Your task to perform on an android device: What's the weather going to be tomorrow? Image 0: 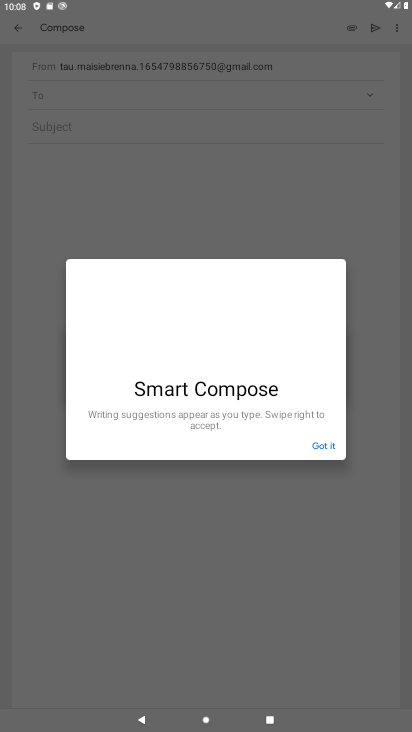
Step 0: press home button
Your task to perform on an android device: What's the weather going to be tomorrow? Image 1: 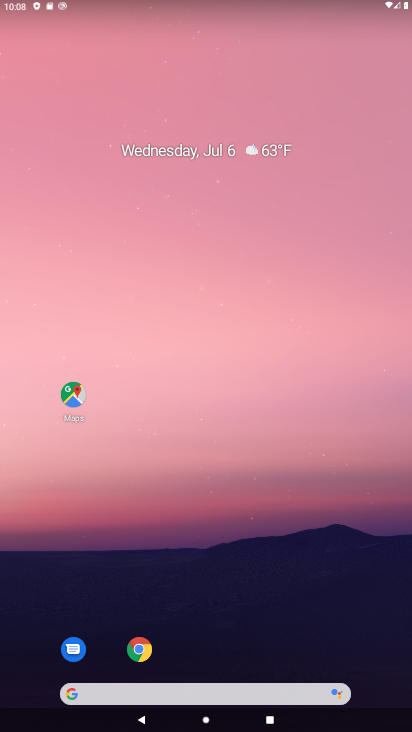
Step 1: click (72, 694)
Your task to perform on an android device: What's the weather going to be tomorrow? Image 2: 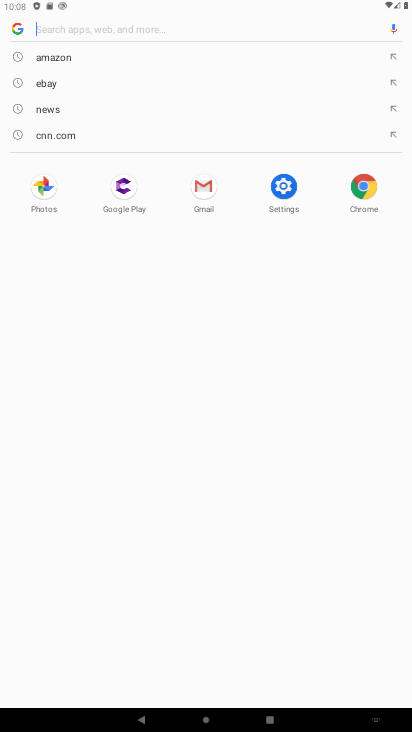
Step 2: click (121, 25)
Your task to perform on an android device: What's the weather going to be tomorrow? Image 3: 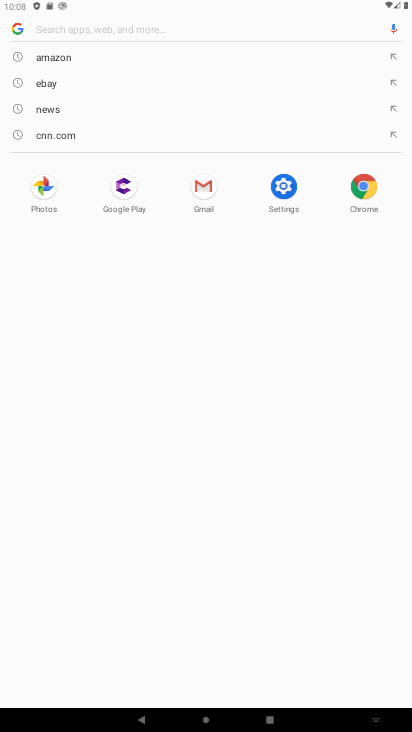
Step 3: type "weather going to be tomorrow?"
Your task to perform on an android device: What's the weather going to be tomorrow? Image 4: 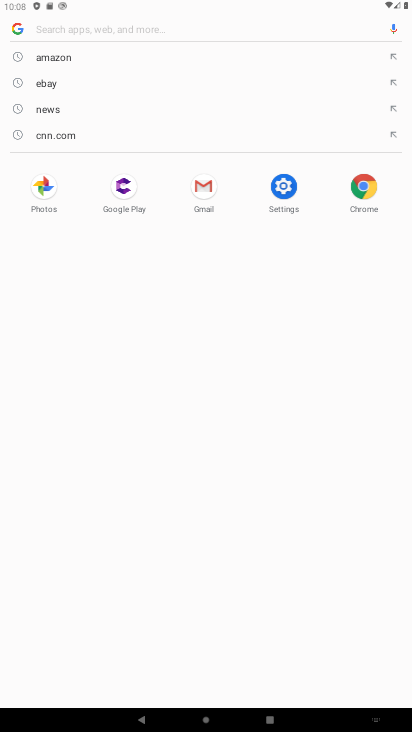
Step 4: click (121, 25)
Your task to perform on an android device: What's the weather going to be tomorrow? Image 5: 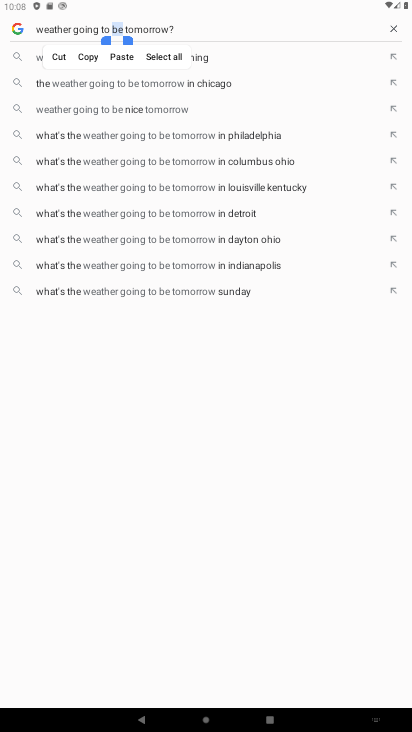
Step 5: click (241, 28)
Your task to perform on an android device: What's the weather going to be tomorrow? Image 6: 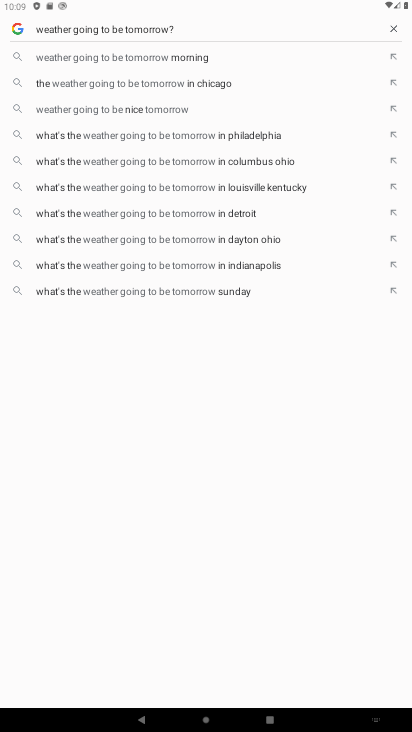
Step 6: click (212, 29)
Your task to perform on an android device: What's the weather going to be tomorrow? Image 7: 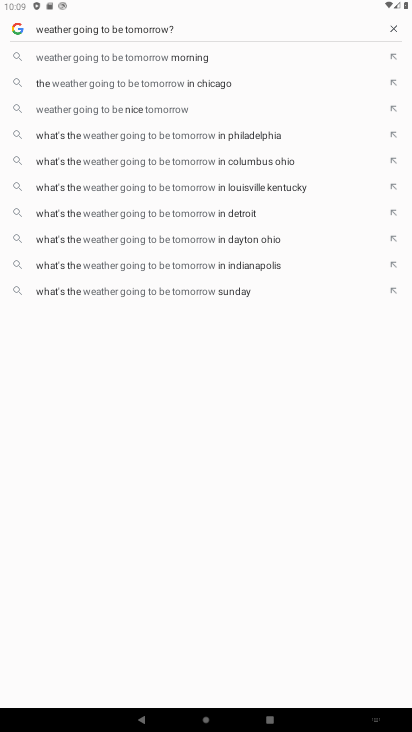
Step 7: click (241, 16)
Your task to perform on an android device: What's the weather going to be tomorrow? Image 8: 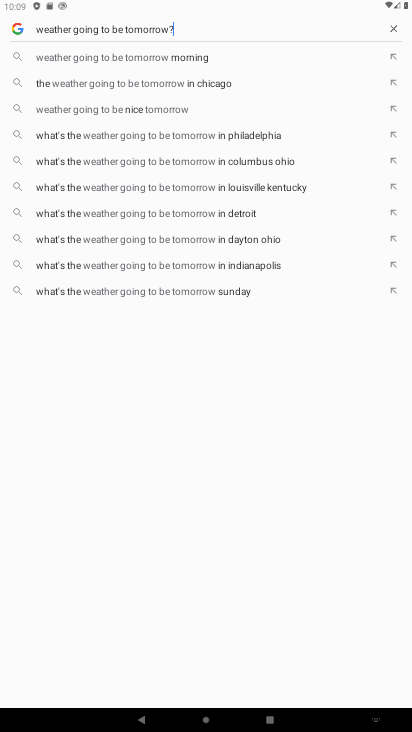
Step 8: click (394, 26)
Your task to perform on an android device: What's the weather going to be tomorrow? Image 9: 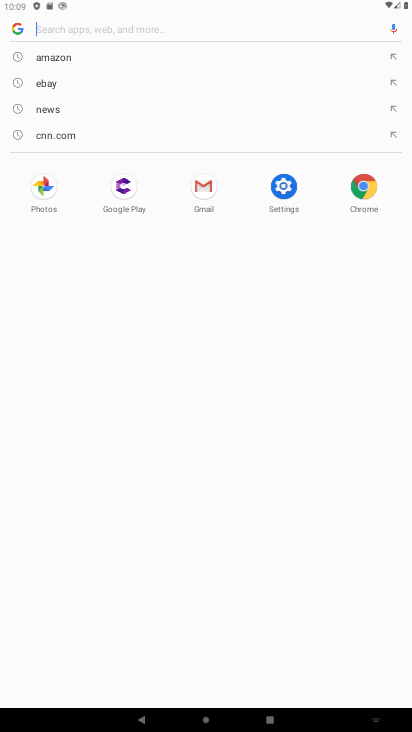
Step 9: type "weather tomorrow"
Your task to perform on an android device: What's the weather going to be tomorrow? Image 10: 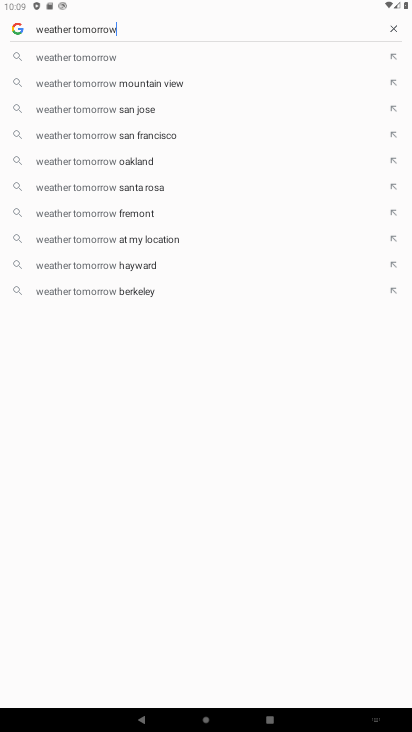
Step 10: click (76, 59)
Your task to perform on an android device: What's the weather going to be tomorrow? Image 11: 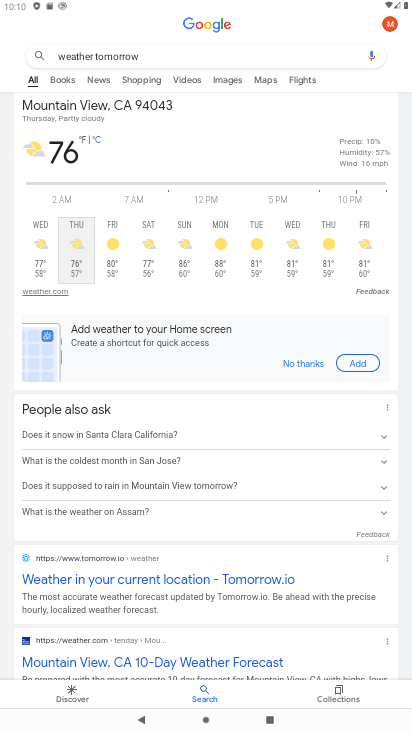
Step 11: task complete